Your task to perform on an android device: Go to Yahoo.com Image 0: 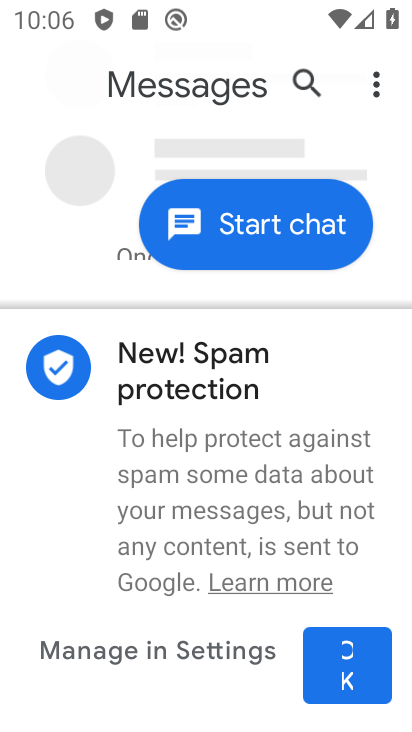
Step 0: press home button
Your task to perform on an android device: Go to Yahoo.com Image 1: 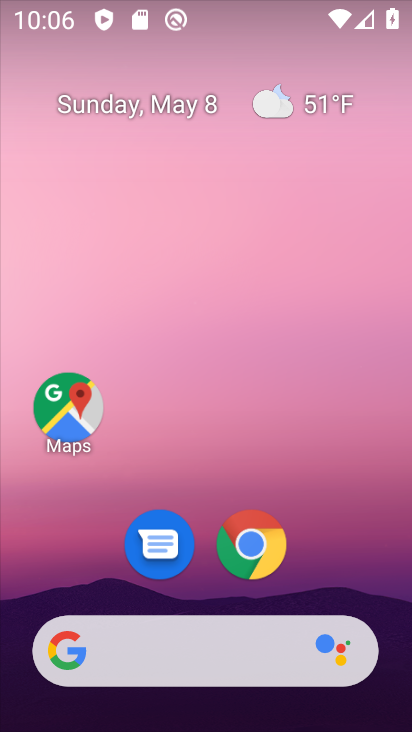
Step 1: drag from (371, 408) to (396, 51)
Your task to perform on an android device: Go to Yahoo.com Image 2: 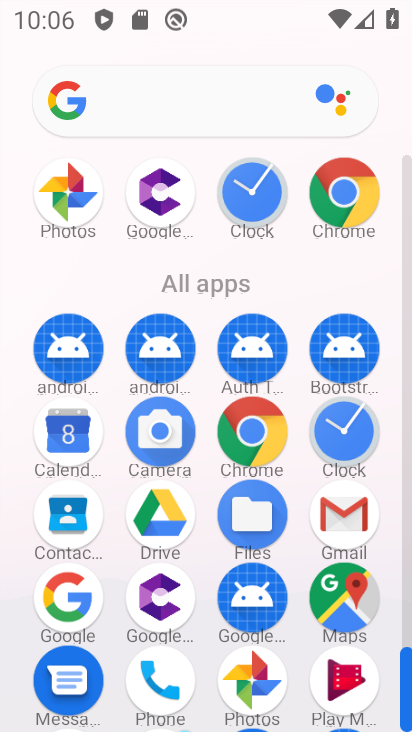
Step 2: click (351, 207)
Your task to perform on an android device: Go to Yahoo.com Image 3: 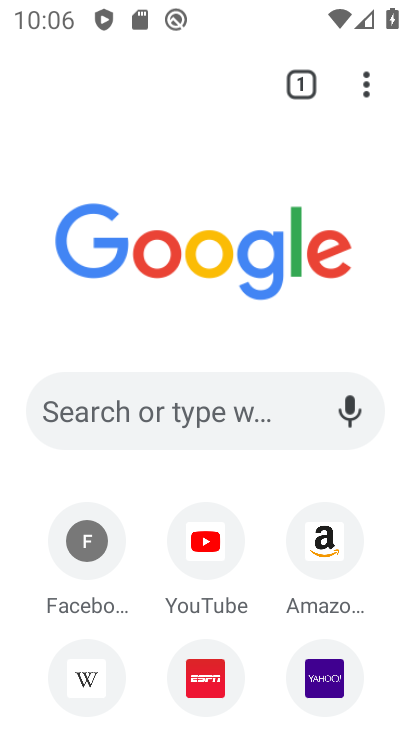
Step 3: drag from (375, 566) to (393, 123)
Your task to perform on an android device: Go to Yahoo.com Image 4: 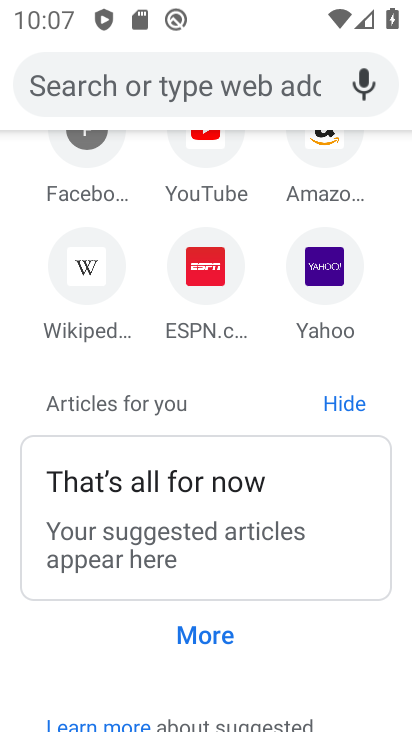
Step 4: click (317, 275)
Your task to perform on an android device: Go to Yahoo.com Image 5: 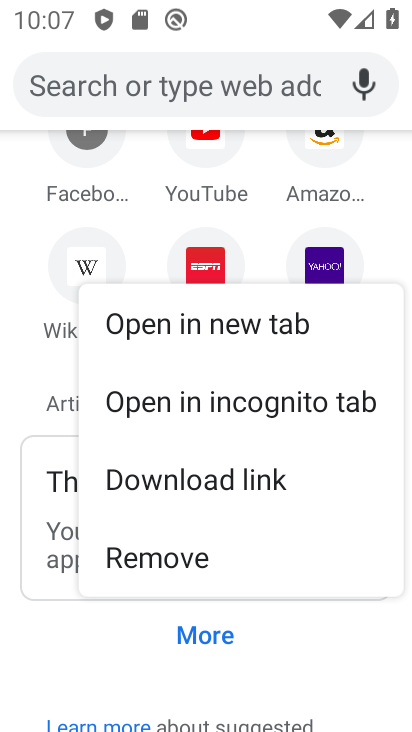
Step 5: click (325, 273)
Your task to perform on an android device: Go to Yahoo.com Image 6: 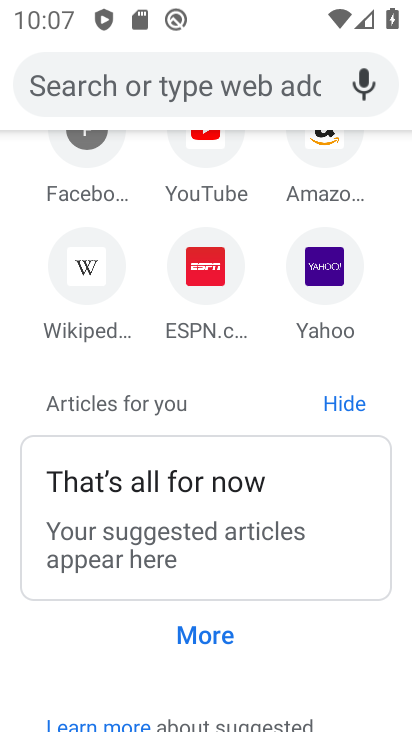
Step 6: click (329, 274)
Your task to perform on an android device: Go to Yahoo.com Image 7: 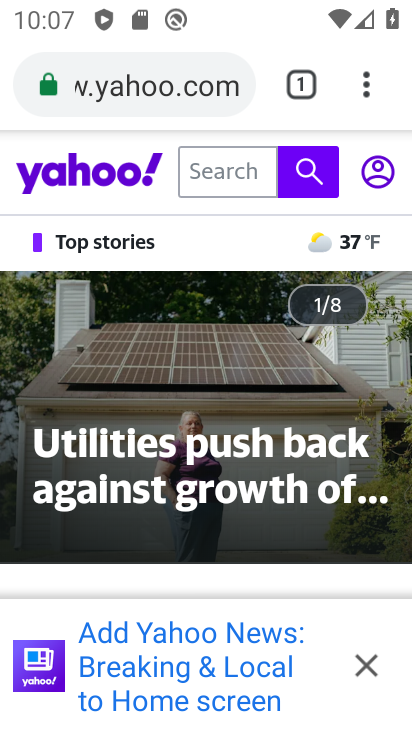
Step 7: task complete